Your task to perform on an android device: toggle pop-ups in chrome Image 0: 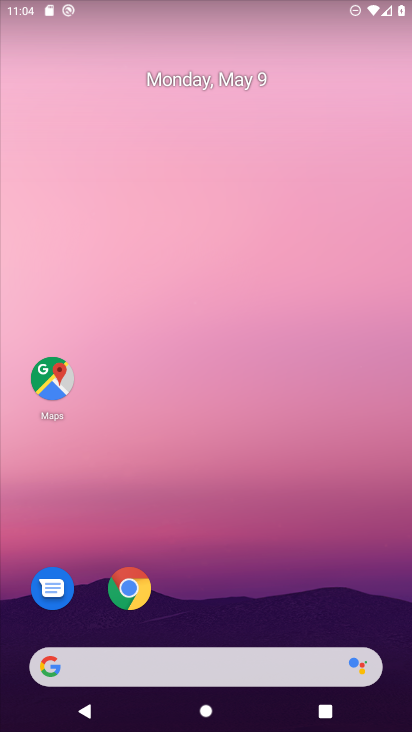
Step 0: click (136, 599)
Your task to perform on an android device: toggle pop-ups in chrome Image 1: 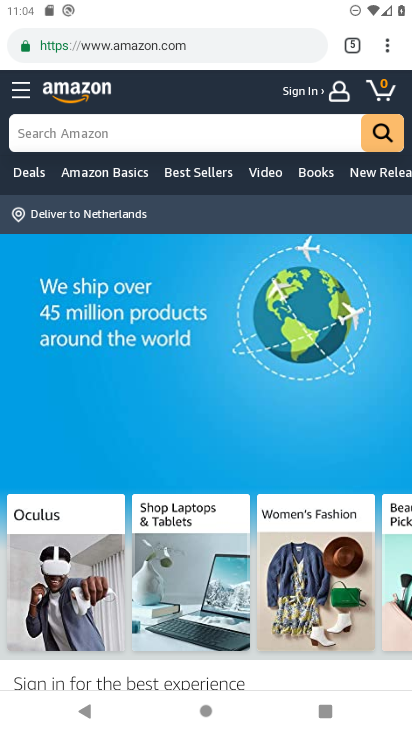
Step 1: click (379, 55)
Your task to perform on an android device: toggle pop-ups in chrome Image 2: 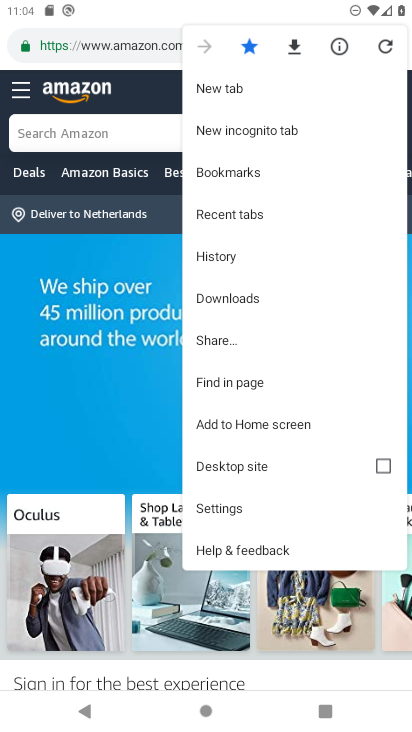
Step 2: click (252, 517)
Your task to perform on an android device: toggle pop-ups in chrome Image 3: 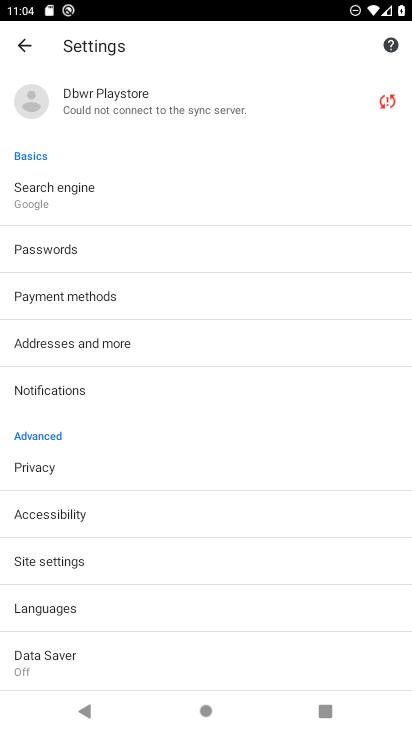
Step 3: click (201, 566)
Your task to perform on an android device: toggle pop-ups in chrome Image 4: 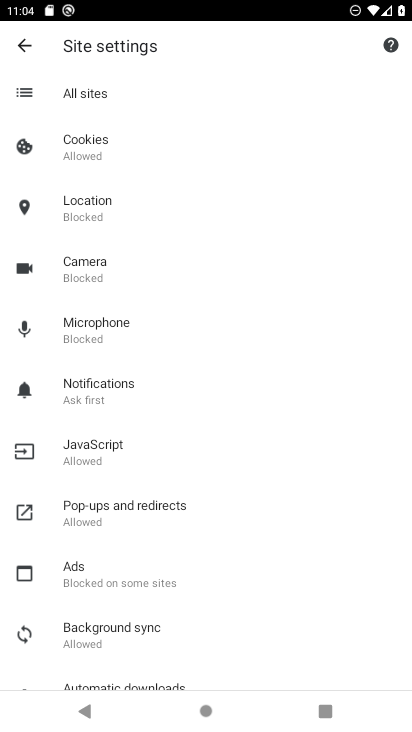
Step 4: click (141, 512)
Your task to perform on an android device: toggle pop-ups in chrome Image 5: 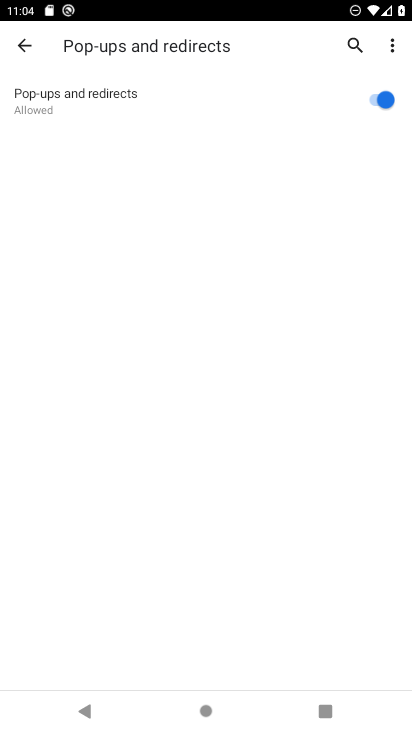
Step 5: task complete